Your task to perform on an android device: Open the map Image 0: 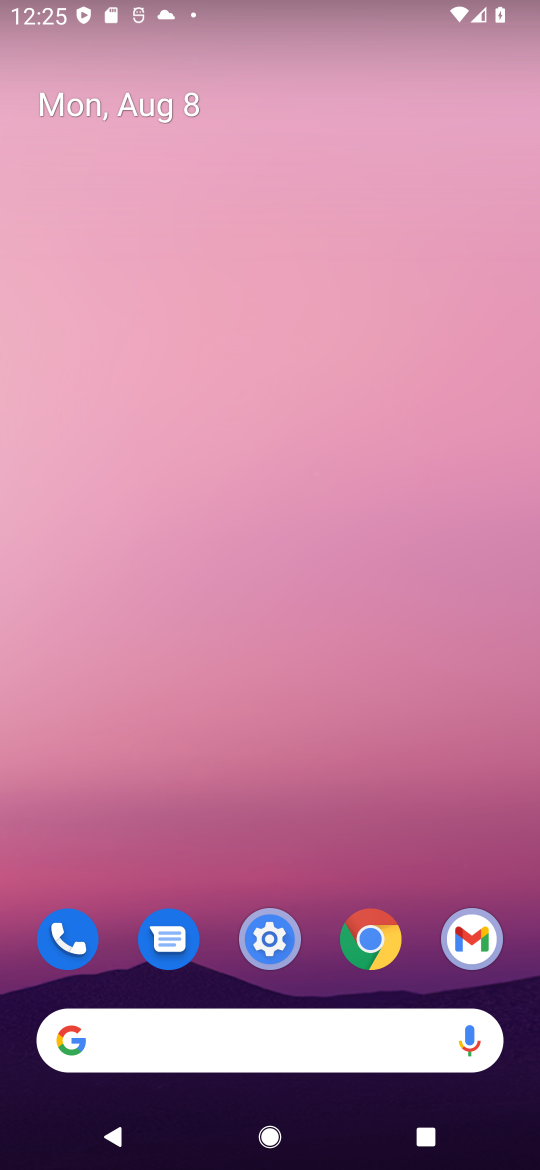
Step 0: drag from (358, 1036) to (417, 307)
Your task to perform on an android device: Open the map Image 1: 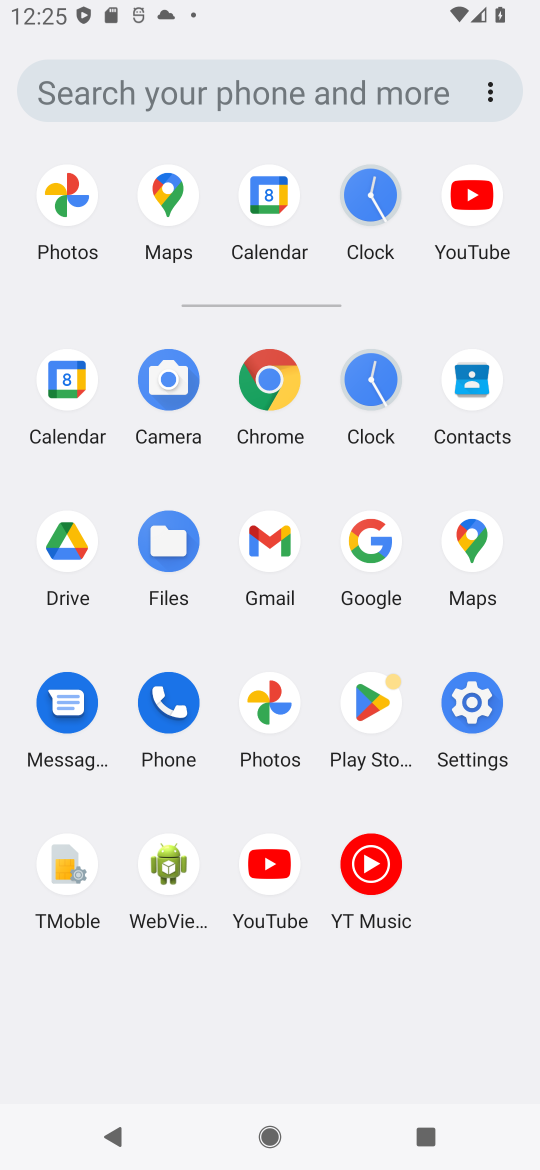
Step 1: click (472, 535)
Your task to perform on an android device: Open the map Image 2: 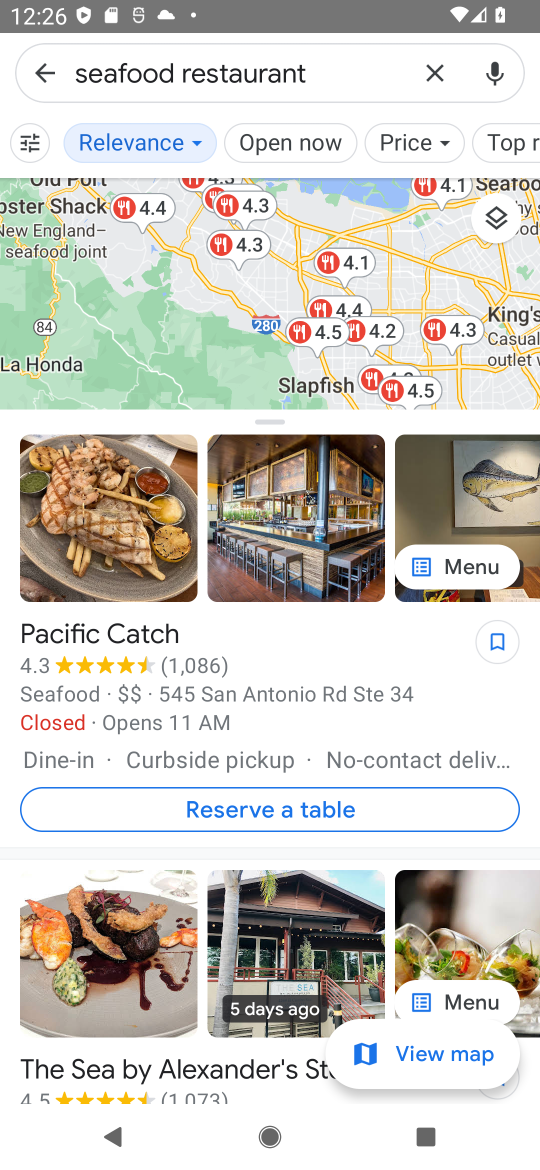
Step 2: task complete